Your task to perform on an android device: Is it going to rain today? Image 0: 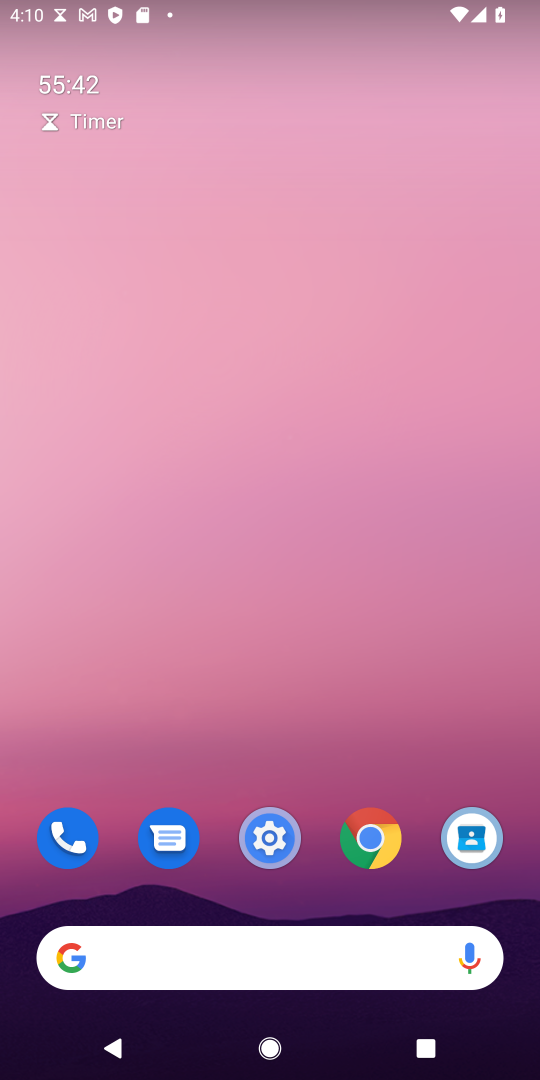
Step 0: click (379, 839)
Your task to perform on an android device: Is it going to rain today? Image 1: 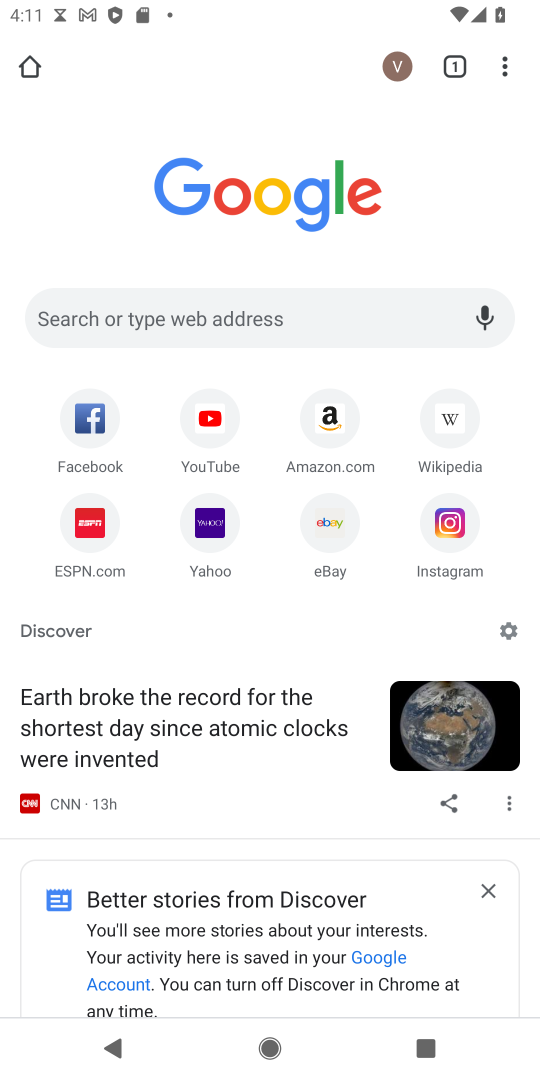
Step 1: click (192, 321)
Your task to perform on an android device: Is it going to rain today? Image 2: 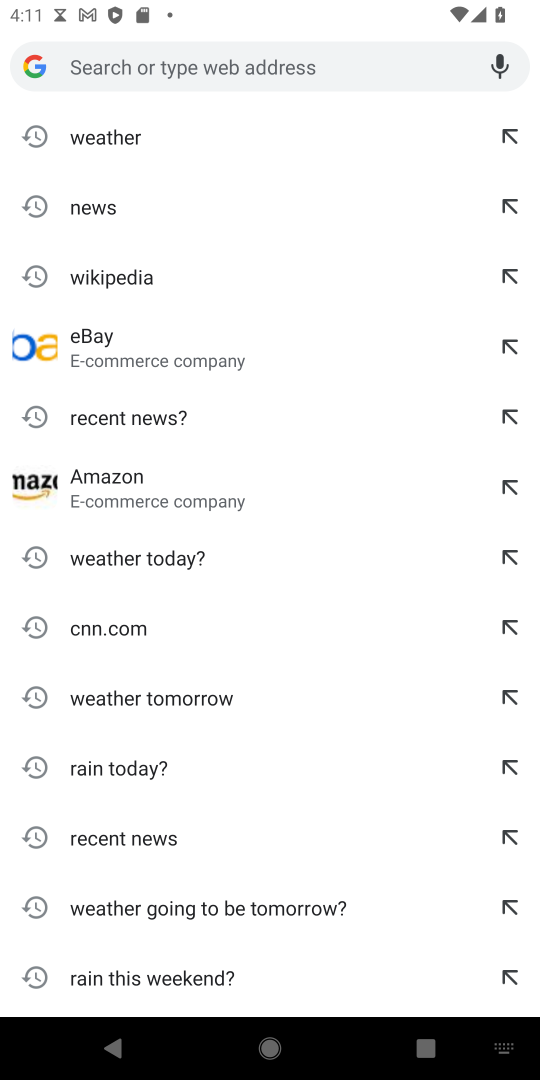
Step 2: type "Is it going to rain today?"
Your task to perform on an android device: Is it going to rain today? Image 3: 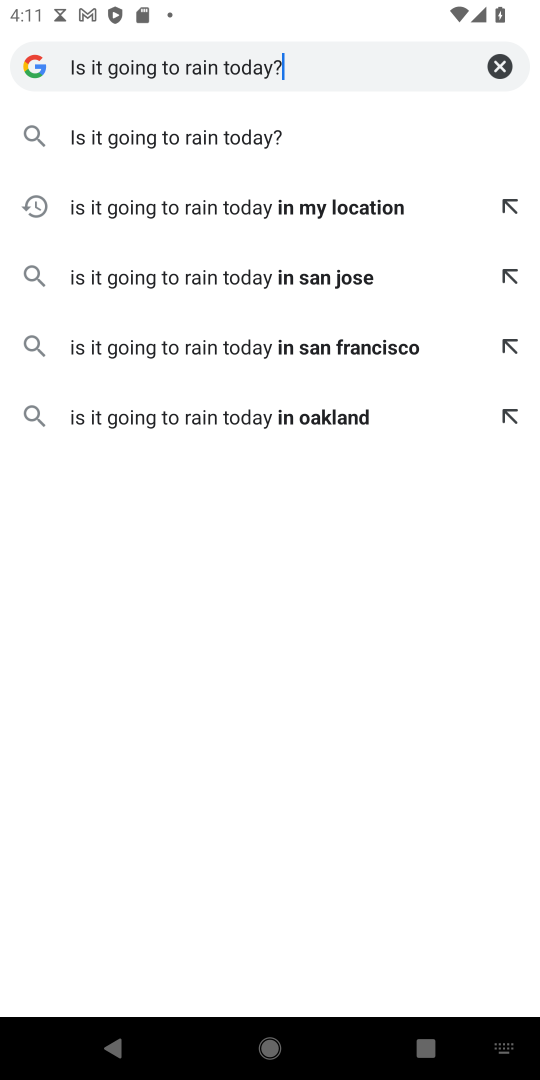
Step 3: click (234, 148)
Your task to perform on an android device: Is it going to rain today? Image 4: 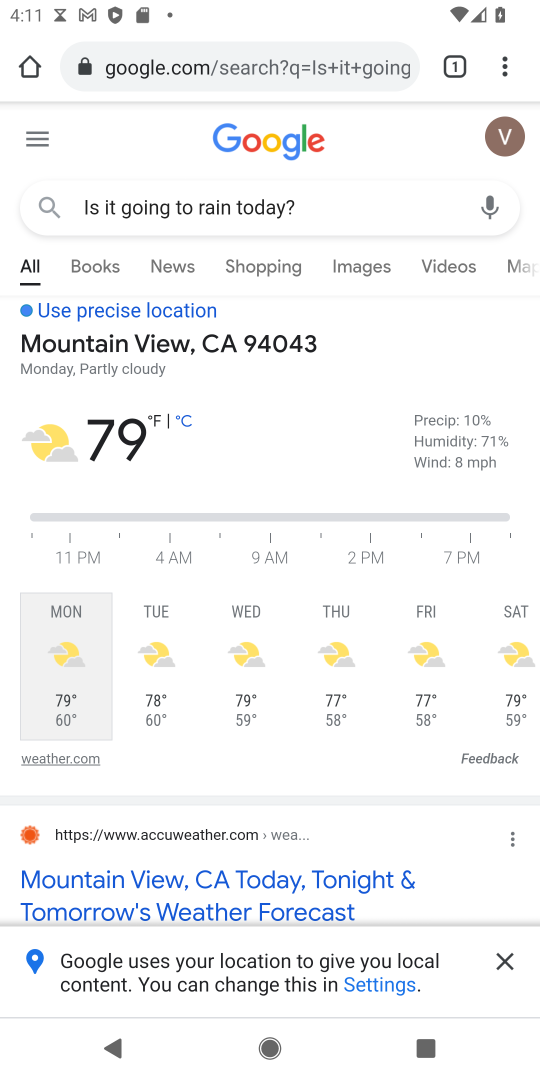
Step 4: task complete